Your task to perform on an android device: Open Yahoo.com Image 0: 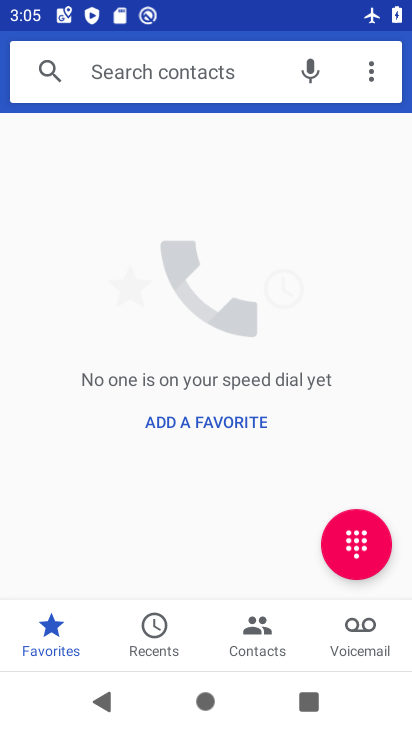
Step 0: press home button
Your task to perform on an android device: Open Yahoo.com Image 1: 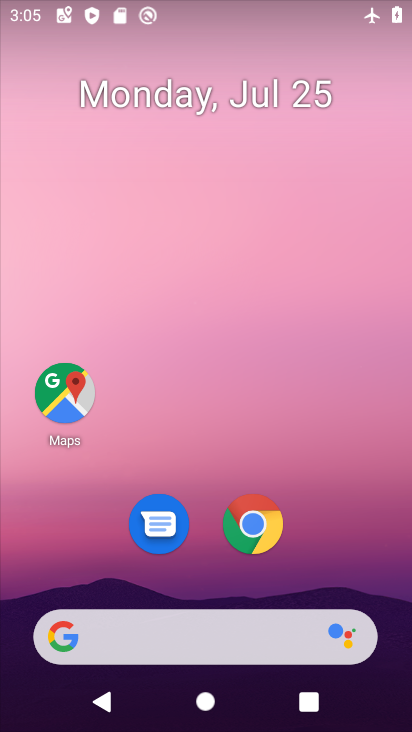
Step 1: click (256, 653)
Your task to perform on an android device: Open Yahoo.com Image 2: 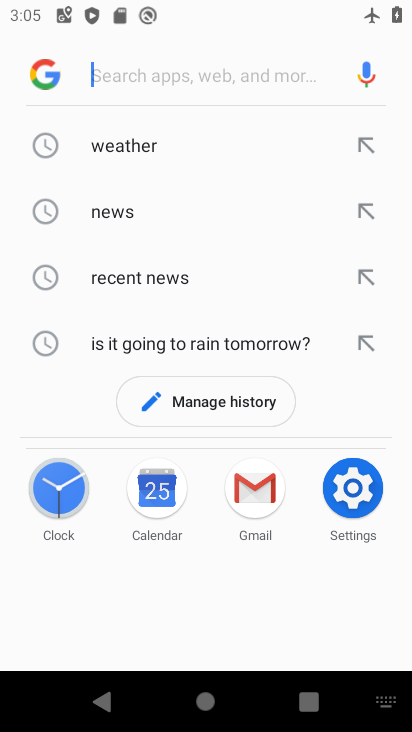
Step 2: type "yahoo.com"
Your task to perform on an android device: Open Yahoo.com Image 3: 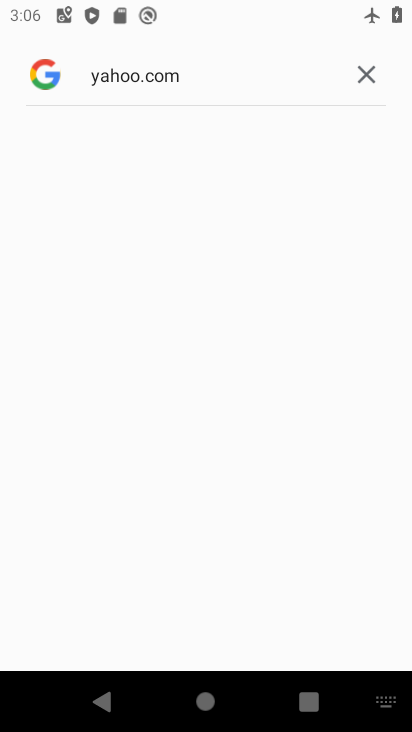
Step 3: task complete